Your task to perform on an android device: add a contact in the contacts app Image 0: 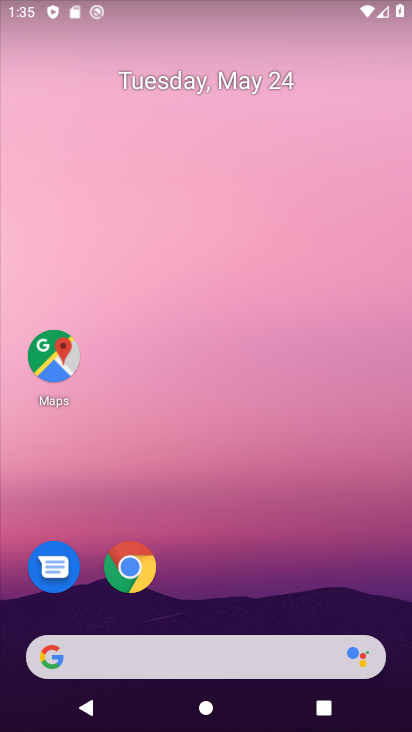
Step 0: drag from (227, 581) to (297, 212)
Your task to perform on an android device: add a contact in the contacts app Image 1: 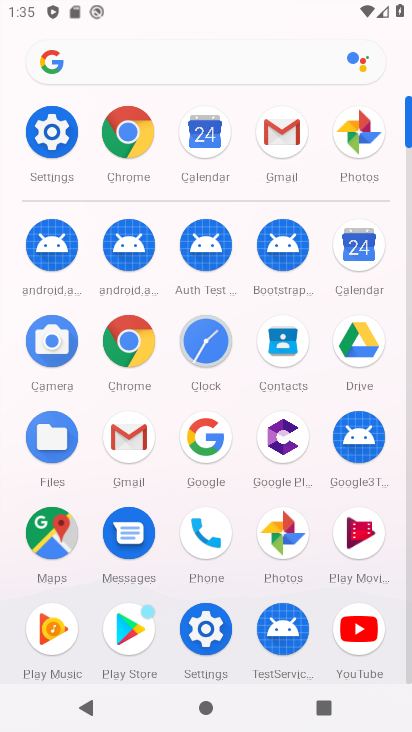
Step 1: click (288, 367)
Your task to perform on an android device: add a contact in the contacts app Image 2: 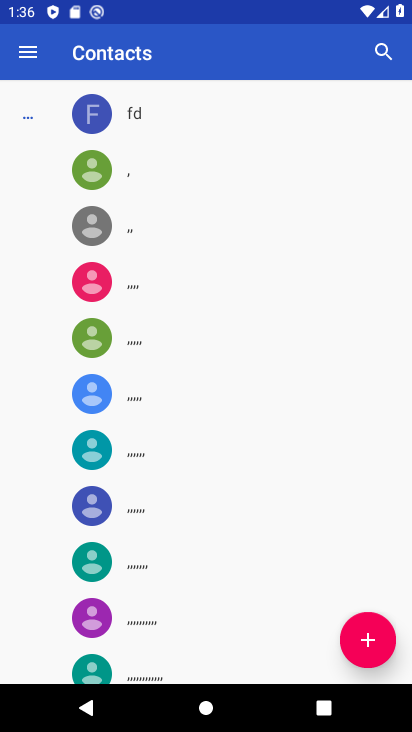
Step 2: click (374, 639)
Your task to perform on an android device: add a contact in the contacts app Image 3: 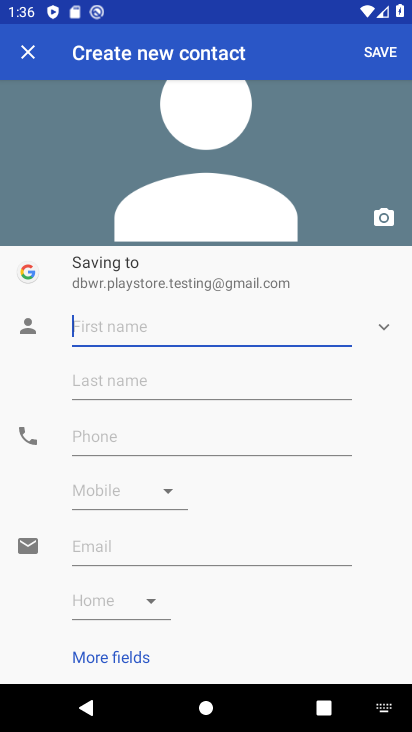
Step 3: type "trunkk"
Your task to perform on an android device: add a contact in the contacts app Image 4: 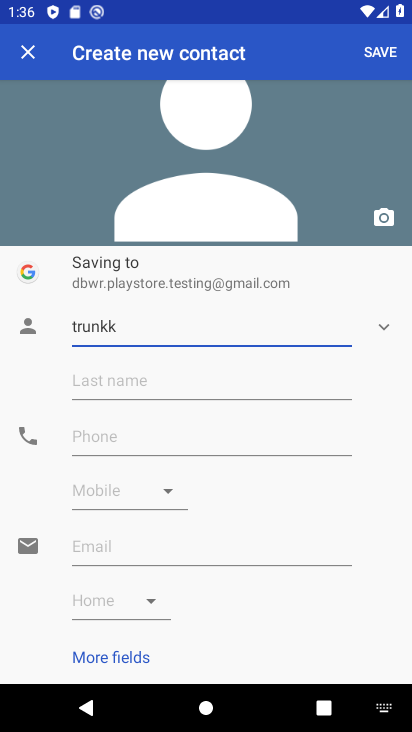
Step 4: click (376, 54)
Your task to perform on an android device: add a contact in the contacts app Image 5: 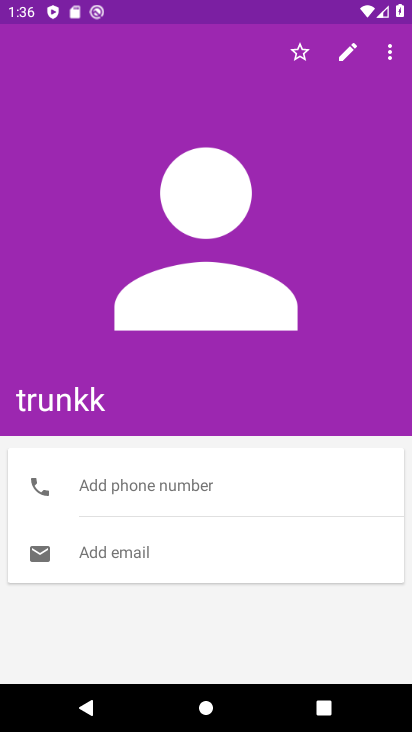
Step 5: task complete